Your task to perform on an android device: Open the web browser Image 0: 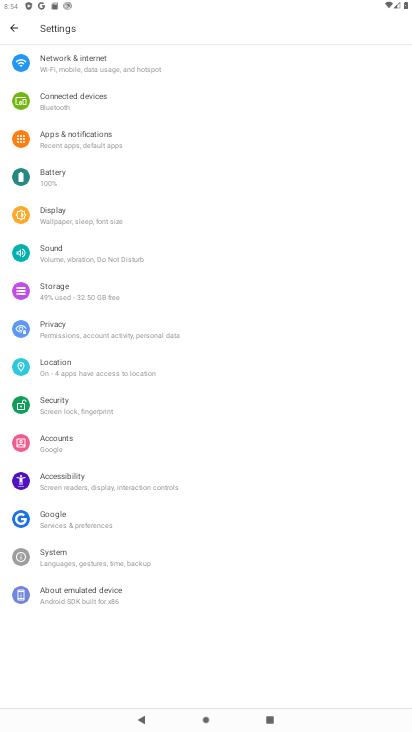
Step 0: press home button
Your task to perform on an android device: Open the web browser Image 1: 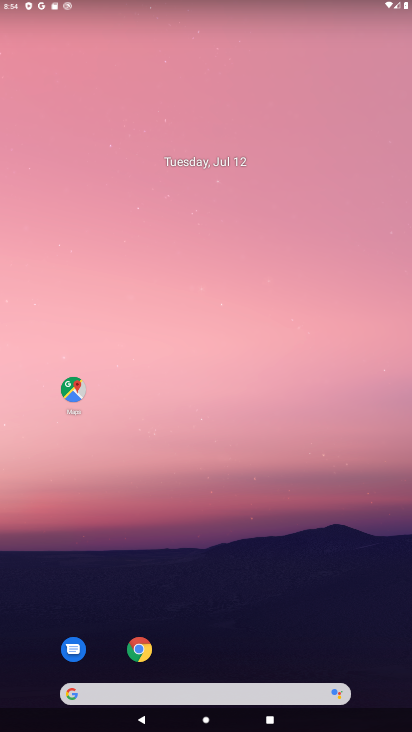
Step 1: click (153, 654)
Your task to perform on an android device: Open the web browser Image 2: 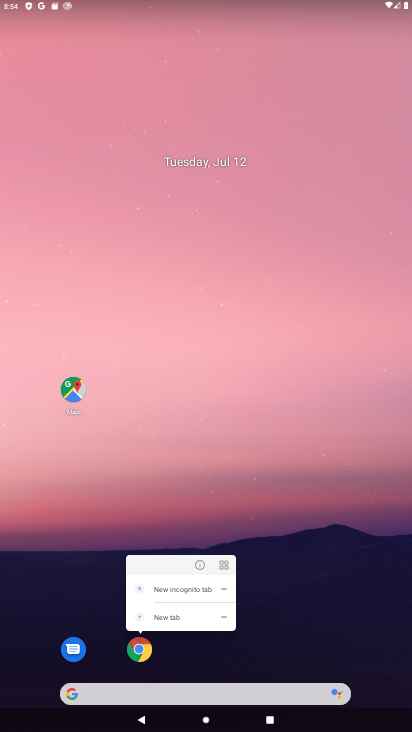
Step 2: click (135, 646)
Your task to perform on an android device: Open the web browser Image 3: 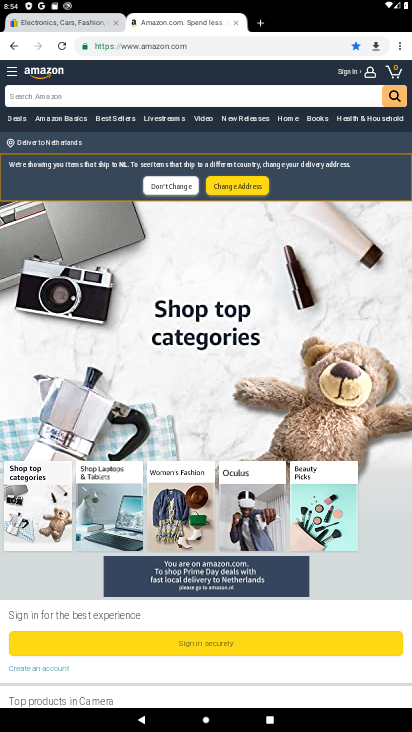
Step 3: task complete